Your task to perform on an android device: Show me popular videos on Youtube Image 0: 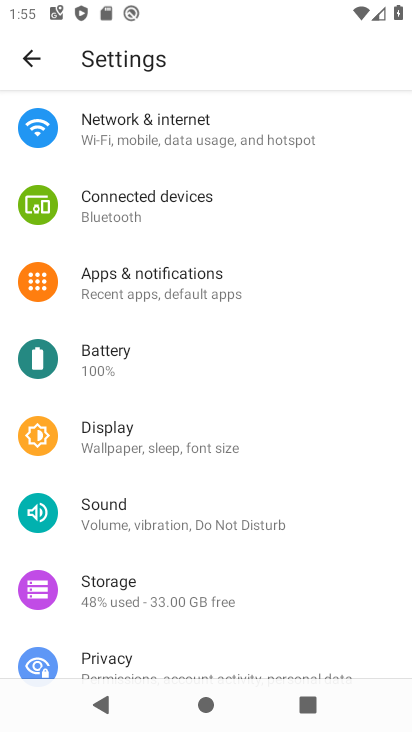
Step 0: press home button
Your task to perform on an android device: Show me popular videos on Youtube Image 1: 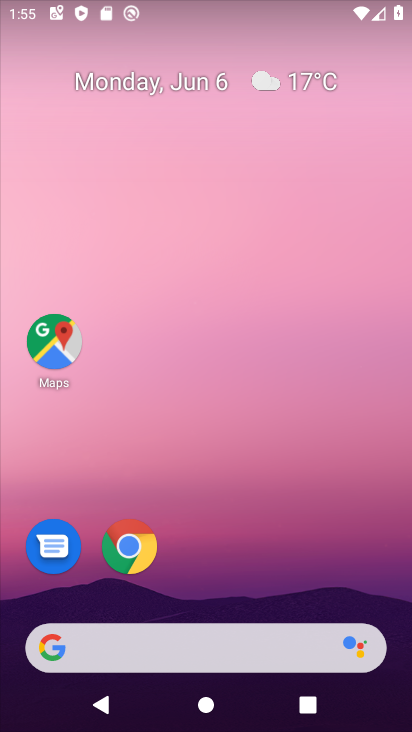
Step 1: drag from (261, 592) to (253, 132)
Your task to perform on an android device: Show me popular videos on Youtube Image 2: 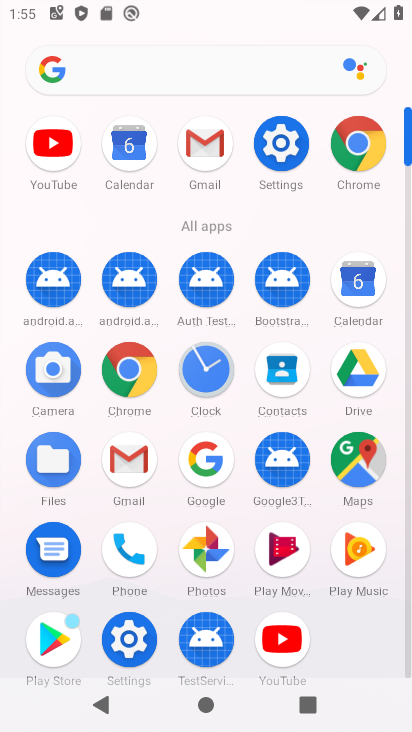
Step 2: click (291, 643)
Your task to perform on an android device: Show me popular videos on Youtube Image 3: 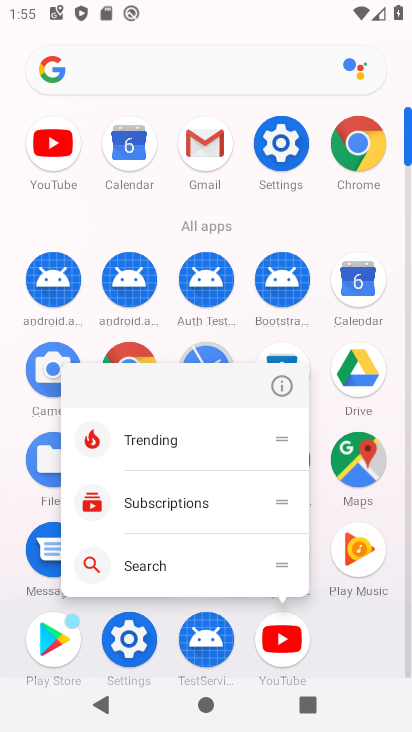
Step 3: click (287, 644)
Your task to perform on an android device: Show me popular videos on Youtube Image 4: 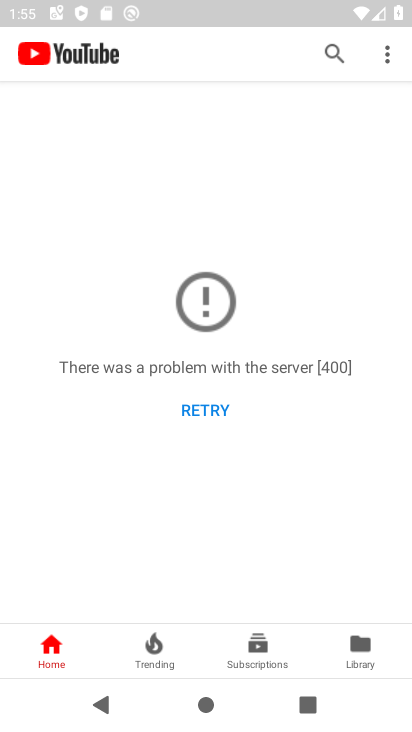
Step 4: click (197, 413)
Your task to perform on an android device: Show me popular videos on Youtube Image 5: 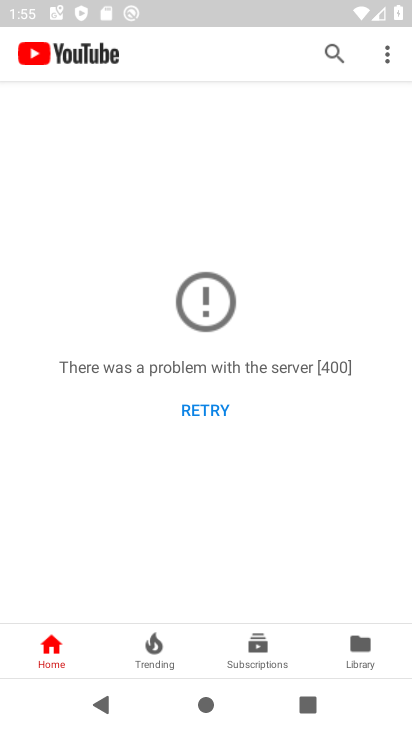
Step 5: task complete